Your task to perform on an android device: Open accessibility settings Image 0: 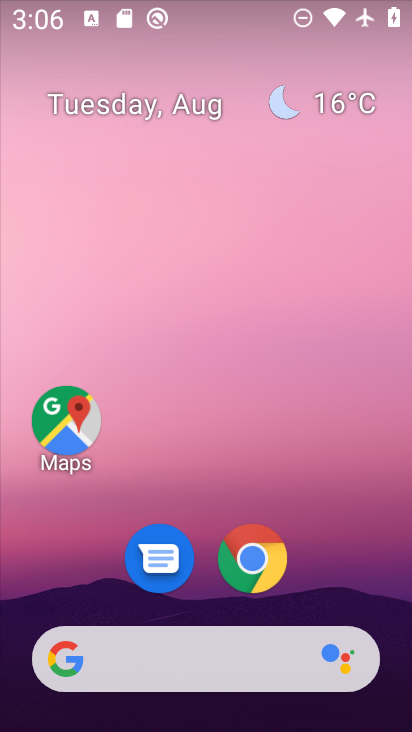
Step 0: drag from (207, 486) to (198, 95)
Your task to perform on an android device: Open accessibility settings Image 1: 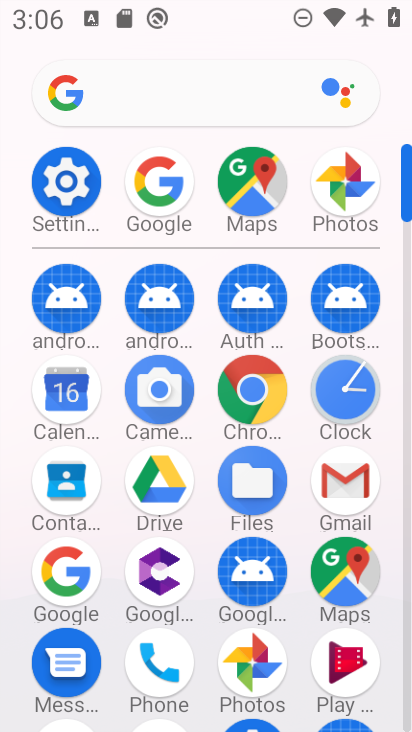
Step 1: click (40, 183)
Your task to perform on an android device: Open accessibility settings Image 2: 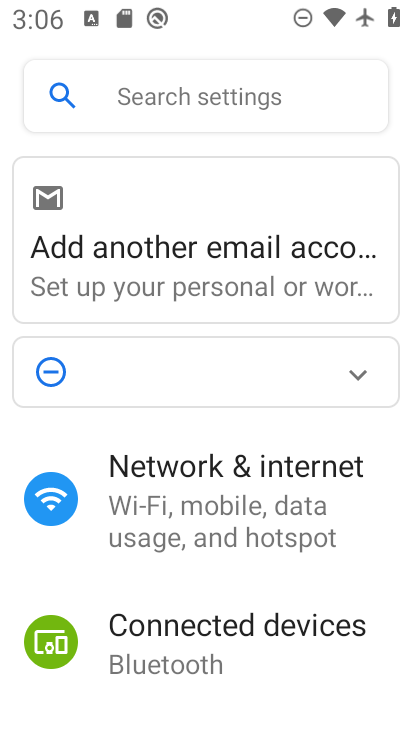
Step 2: drag from (285, 590) to (285, 88)
Your task to perform on an android device: Open accessibility settings Image 3: 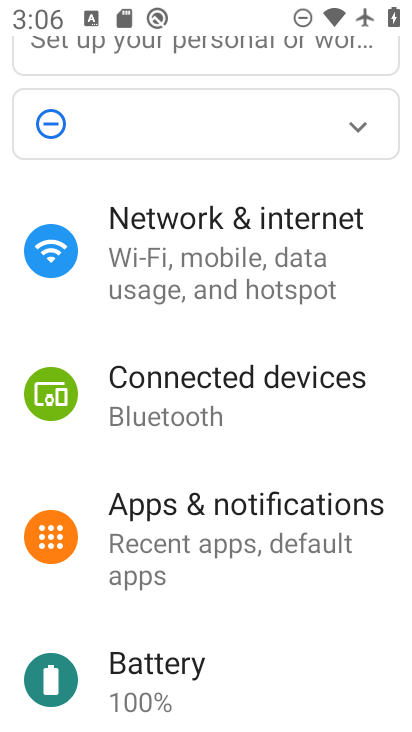
Step 3: drag from (305, 455) to (282, 178)
Your task to perform on an android device: Open accessibility settings Image 4: 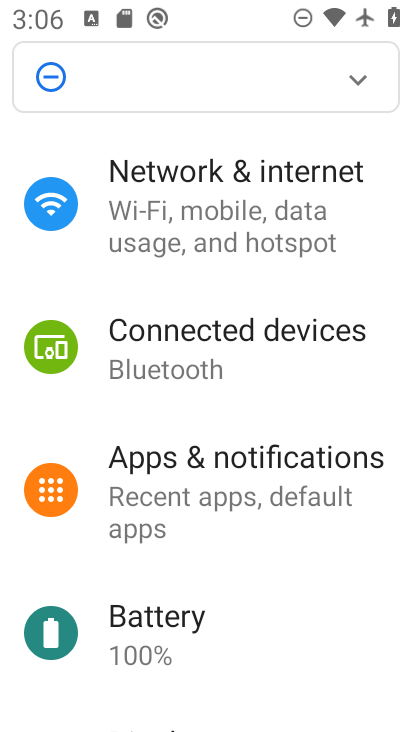
Step 4: drag from (192, 544) to (216, 289)
Your task to perform on an android device: Open accessibility settings Image 5: 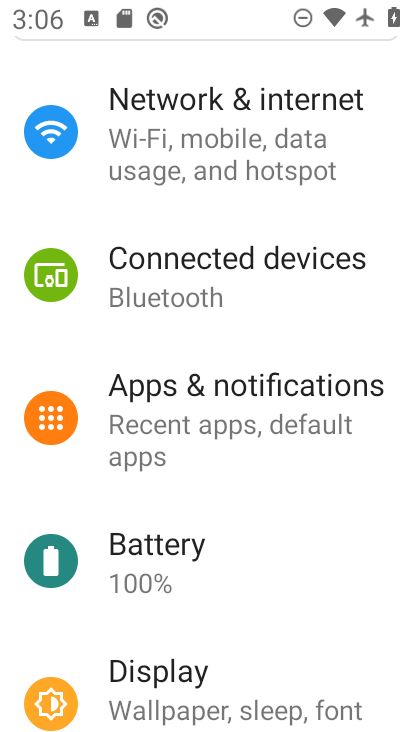
Step 5: drag from (239, 599) to (233, 262)
Your task to perform on an android device: Open accessibility settings Image 6: 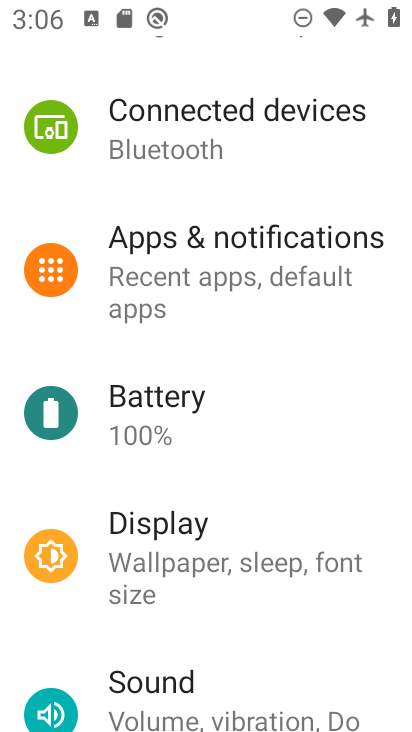
Step 6: drag from (248, 571) to (247, 166)
Your task to perform on an android device: Open accessibility settings Image 7: 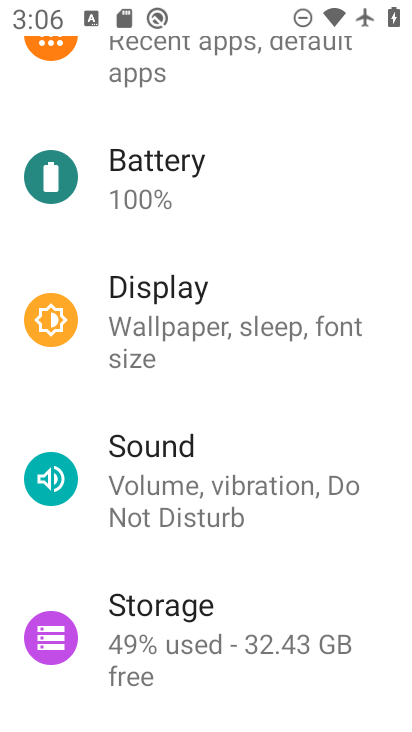
Step 7: drag from (256, 524) to (260, 148)
Your task to perform on an android device: Open accessibility settings Image 8: 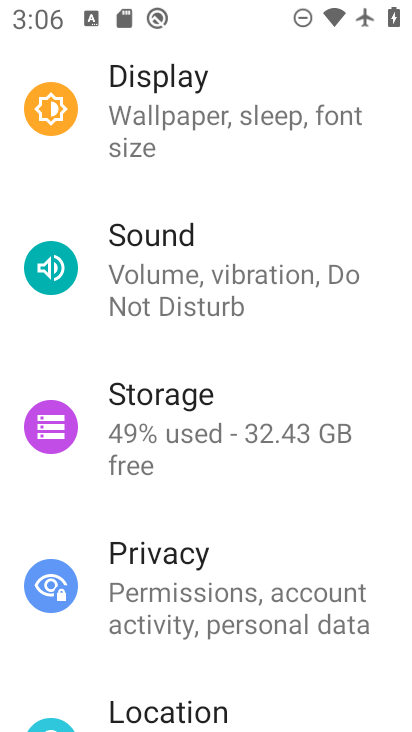
Step 8: drag from (207, 536) to (219, 173)
Your task to perform on an android device: Open accessibility settings Image 9: 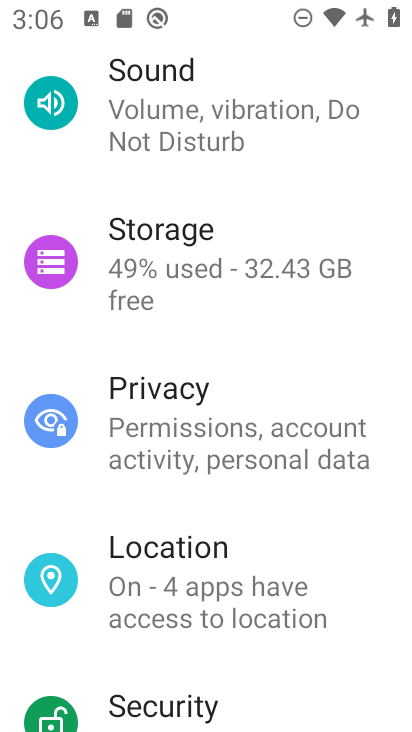
Step 9: drag from (236, 595) to (236, 197)
Your task to perform on an android device: Open accessibility settings Image 10: 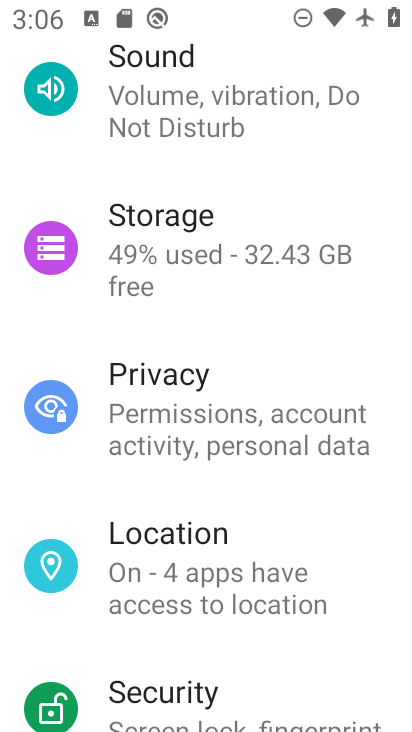
Step 10: drag from (215, 584) to (228, 238)
Your task to perform on an android device: Open accessibility settings Image 11: 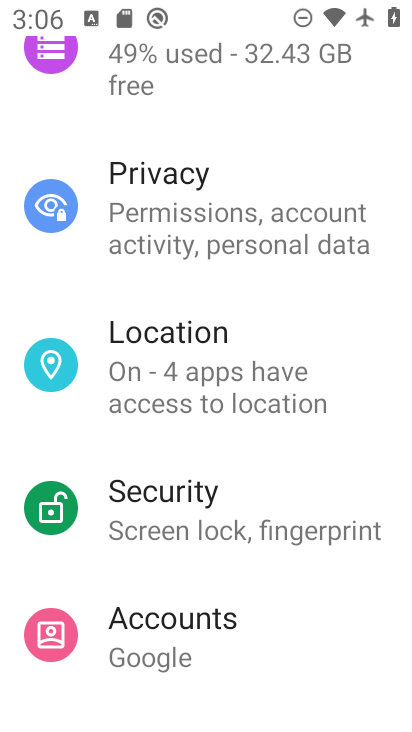
Step 11: drag from (215, 515) to (232, 209)
Your task to perform on an android device: Open accessibility settings Image 12: 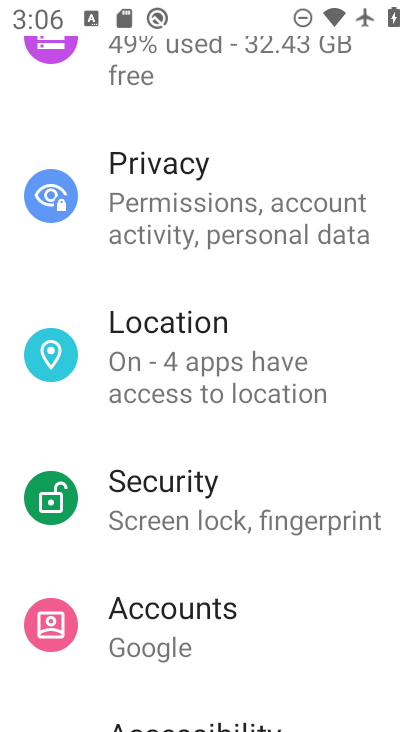
Step 12: drag from (235, 585) to (227, 201)
Your task to perform on an android device: Open accessibility settings Image 13: 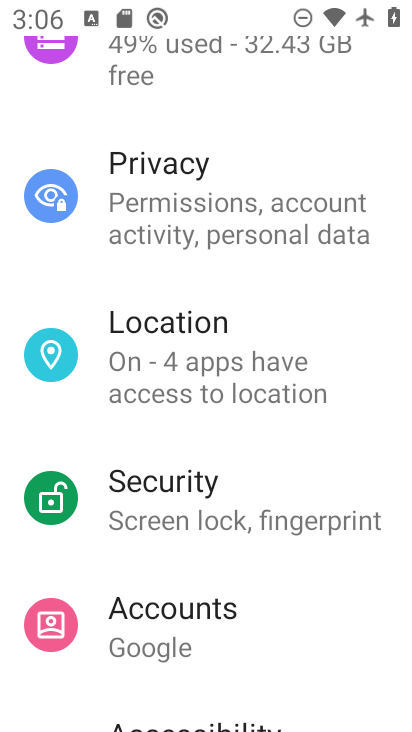
Step 13: drag from (210, 538) to (213, 118)
Your task to perform on an android device: Open accessibility settings Image 14: 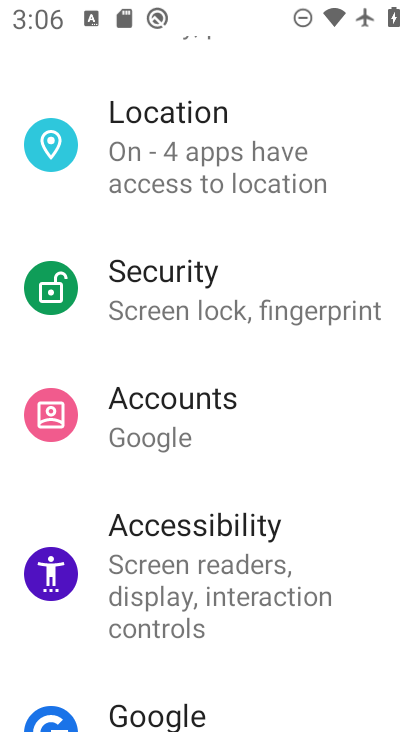
Step 14: click (196, 583)
Your task to perform on an android device: Open accessibility settings Image 15: 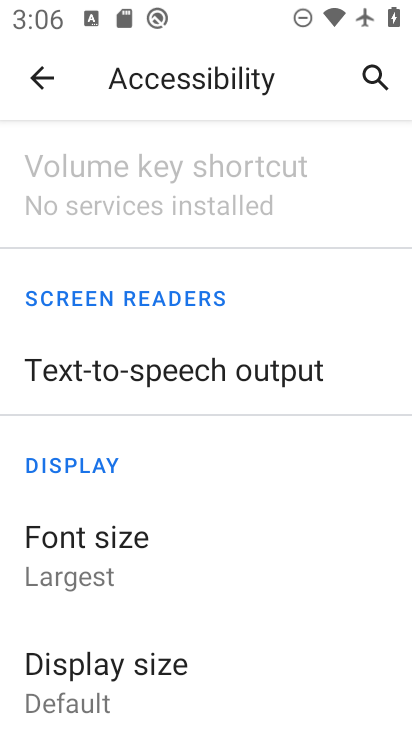
Step 15: task complete